Your task to perform on an android device: Is it going to rain tomorrow? Image 0: 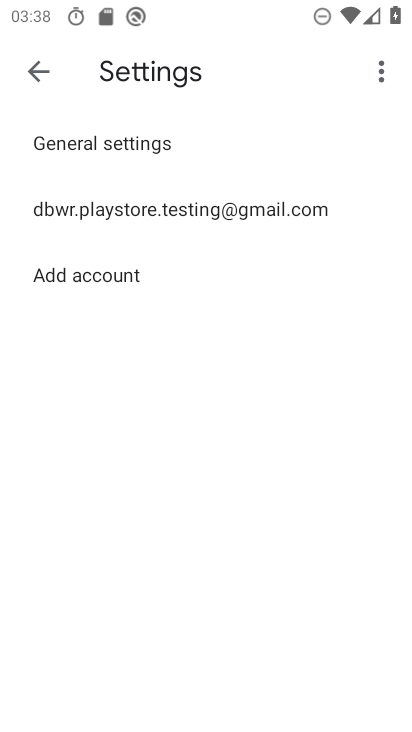
Step 0: press home button
Your task to perform on an android device: Is it going to rain tomorrow? Image 1: 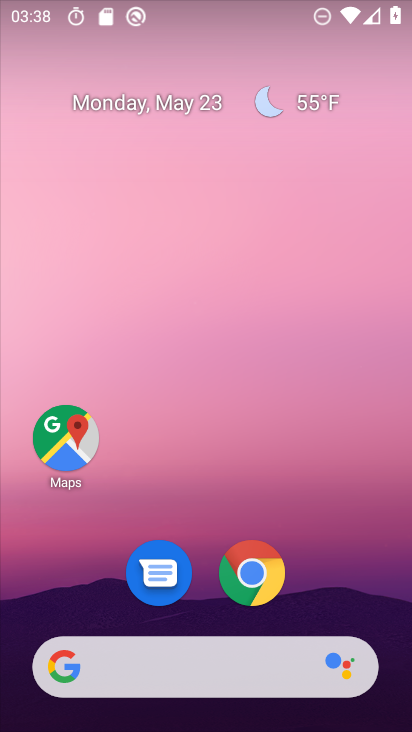
Step 1: click (312, 104)
Your task to perform on an android device: Is it going to rain tomorrow? Image 2: 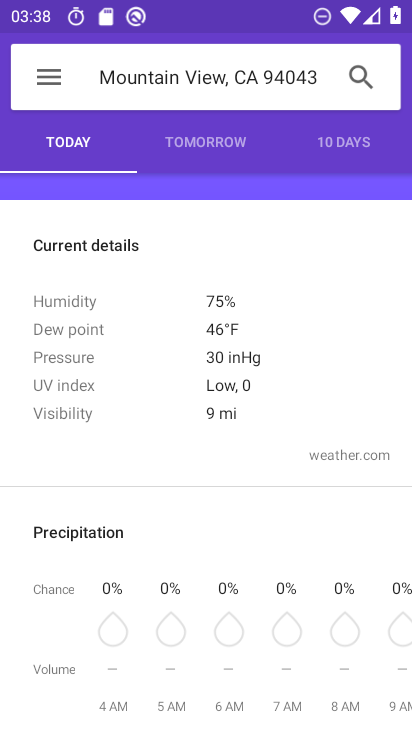
Step 2: drag from (297, 538) to (251, 216)
Your task to perform on an android device: Is it going to rain tomorrow? Image 3: 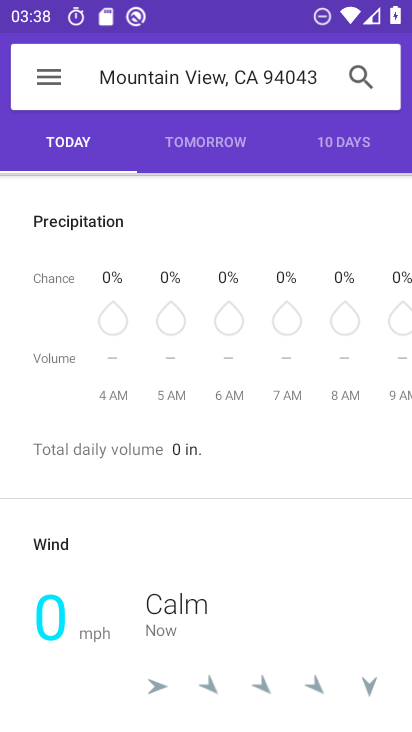
Step 3: drag from (345, 597) to (292, 319)
Your task to perform on an android device: Is it going to rain tomorrow? Image 4: 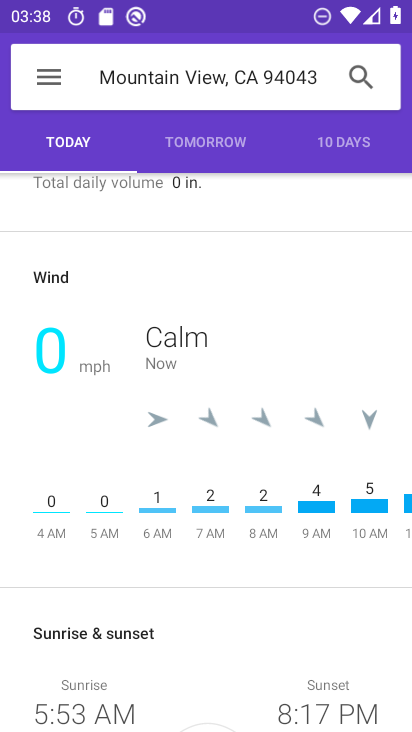
Step 4: drag from (276, 642) to (240, 346)
Your task to perform on an android device: Is it going to rain tomorrow? Image 5: 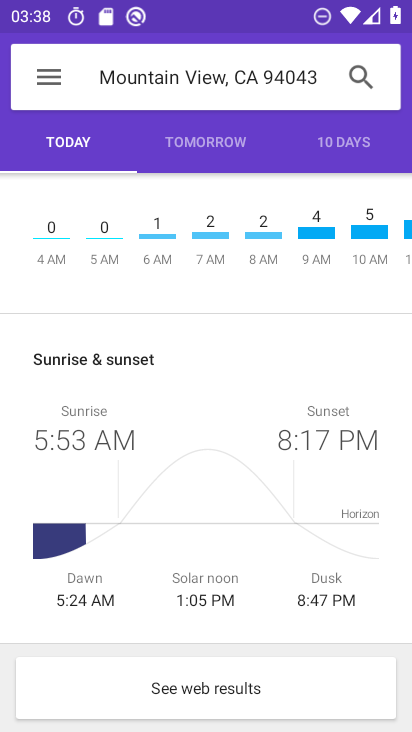
Step 5: click (206, 139)
Your task to perform on an android device: Is it going to rain tomorrow? Image 6: 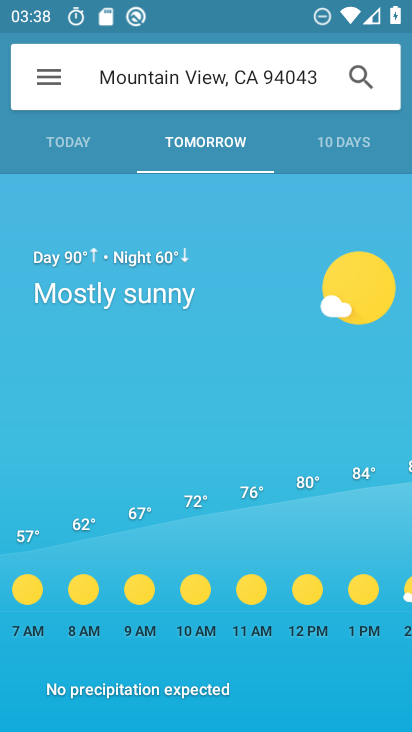
Step 6: task complete